Your task to perform on an android device: What is the recent news? Image 0: 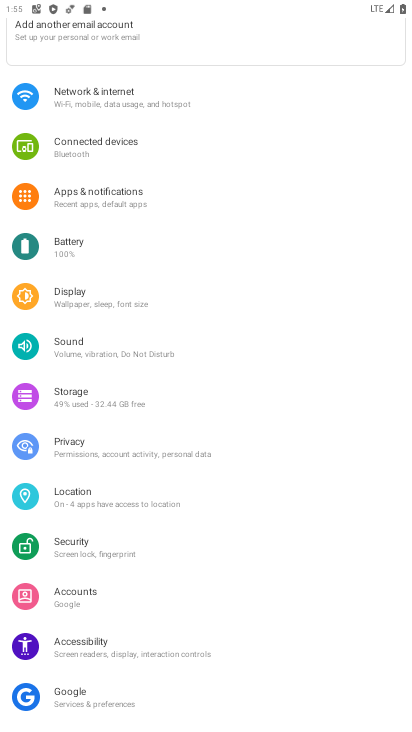
Step 0: press home button
Your task to perform on an android device: What is the recent news? Image 1: 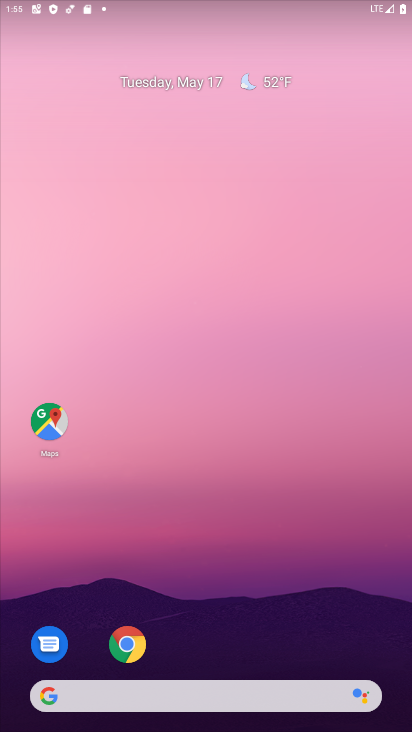
Step 1: task complete